Your task to perform on an android device: turn off improve location accuracy Image 0: 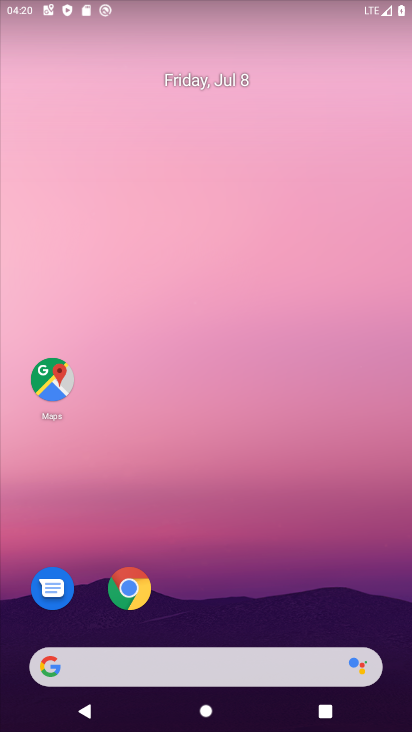
Step 0: drag from (206, 593) to (137, 47)
Your task to perform on an android device: turn off improve location accuracy Image 1: 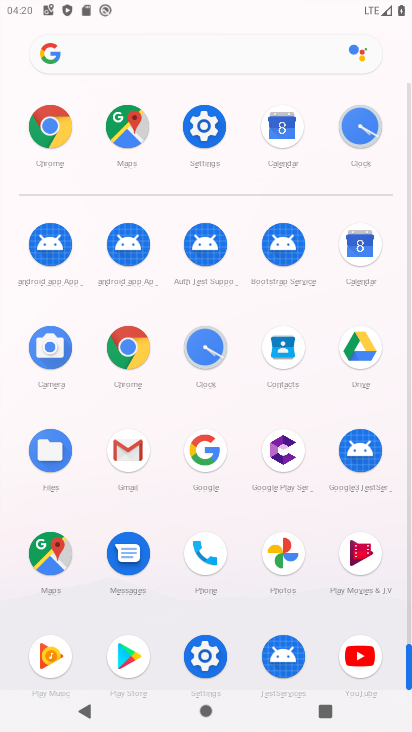
Step 1: click (203, 127)
Your task to perform on an android device: turn off improve location accuracy Image 2: 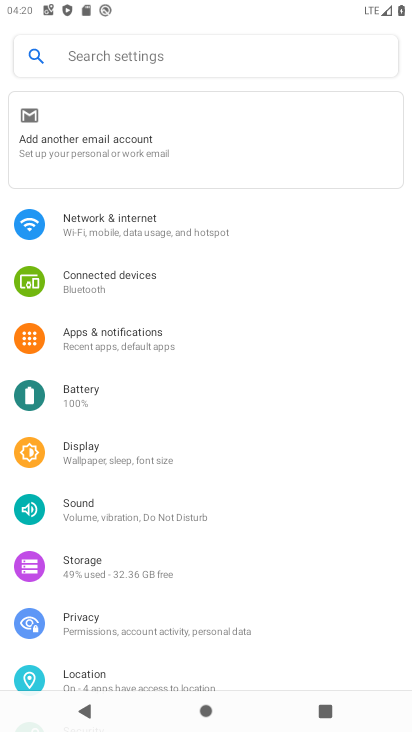
Step 2: drag from (120, 513) to (98, 329)
Your task to perform on an android device: turn off improve location accuracy Image 3: 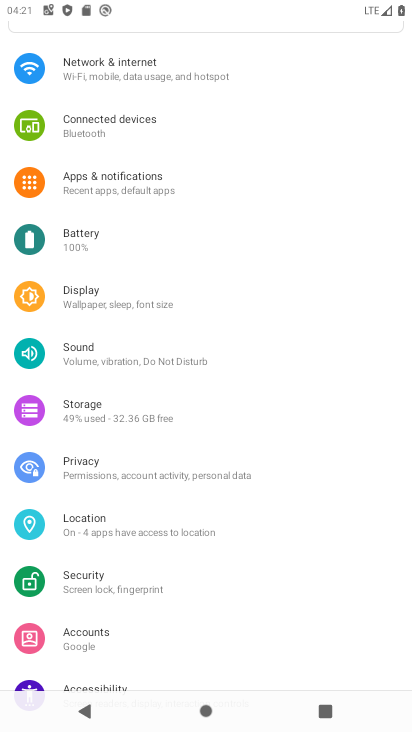
Step 3: click (87, 531)
Your task to perform on an android device: turn off improve location accuracy Image 4: 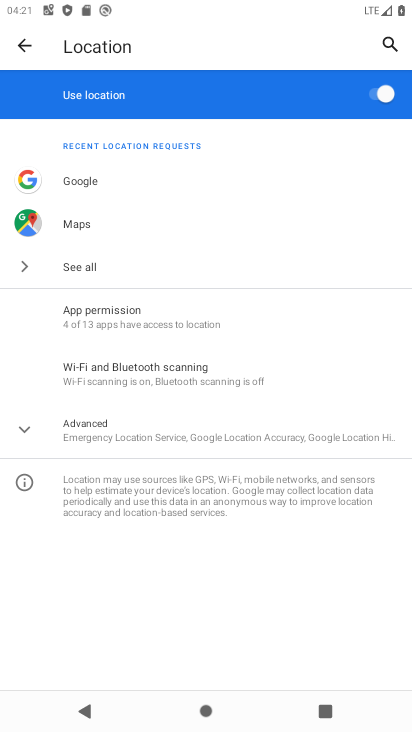
Step 4: click (28, 41)
Your task to perform on an android device: turn off improve location accuracy Image 5: 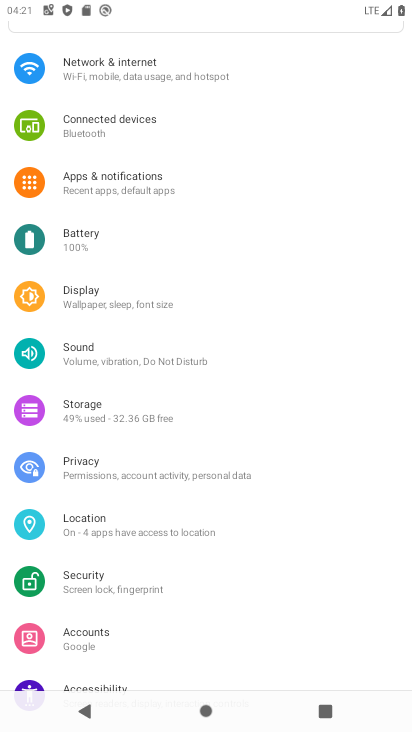
Step 5: click (96, 536)
Your task to perform on an android device: turn off improve location accuracy Image 6: 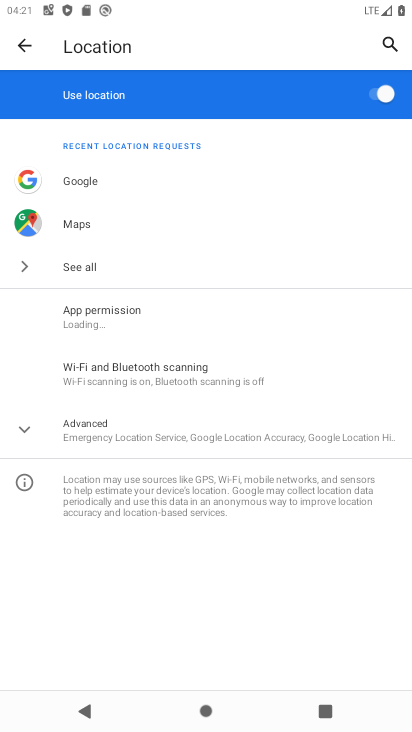
Step 6: click (116, 433)
Your task to perform on an android device: turn off improve location accuracy Image 7: 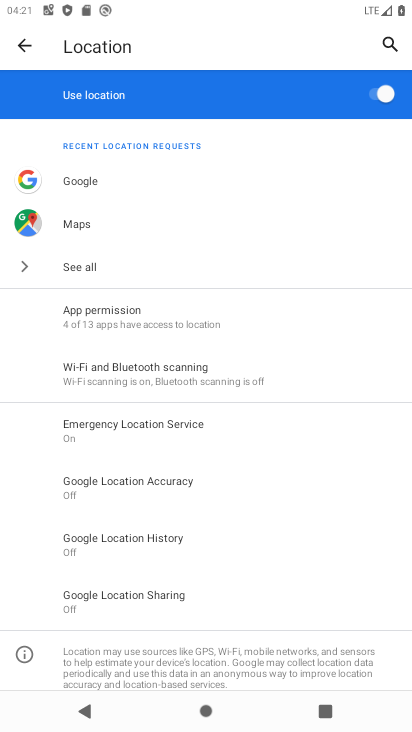
Step 7: click (125, 475)
Your task to perform on an android device: turn off improve location accuracy Image 8: 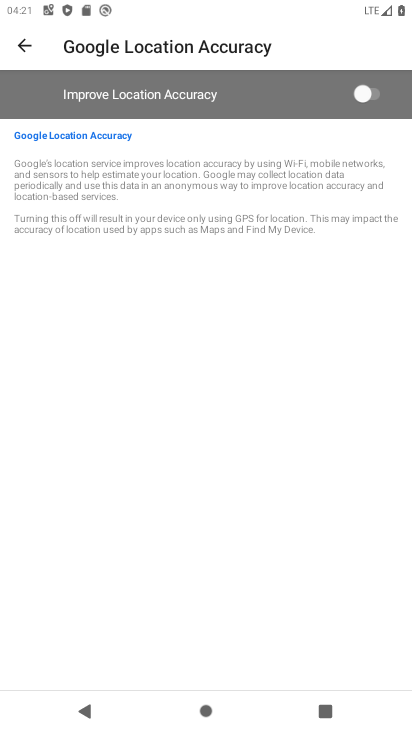
Step 8: task complete